Your task to perform on an android device: Go to privacy settings Image 0: 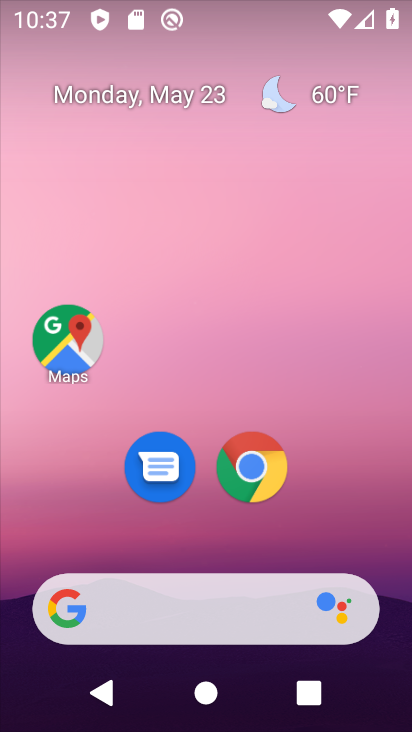
Step 0: drag from (193, 666) to (211, 1)
Your task to perform on an android device: Go to privacy settings Image 1: 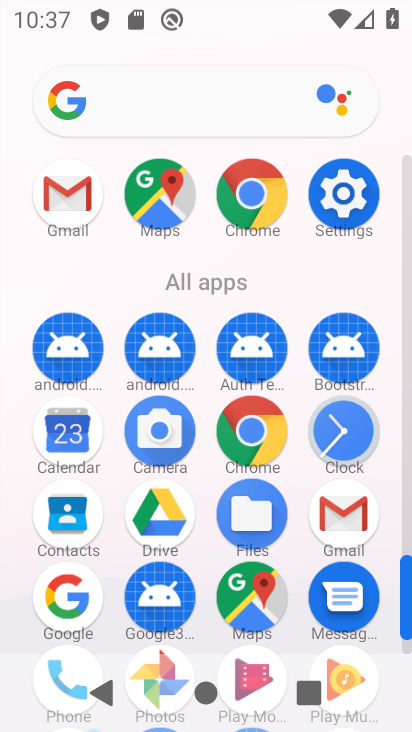
Step 1: click (333, 186)
Your task to perform on an android device: Go to privacy settings Image 2: 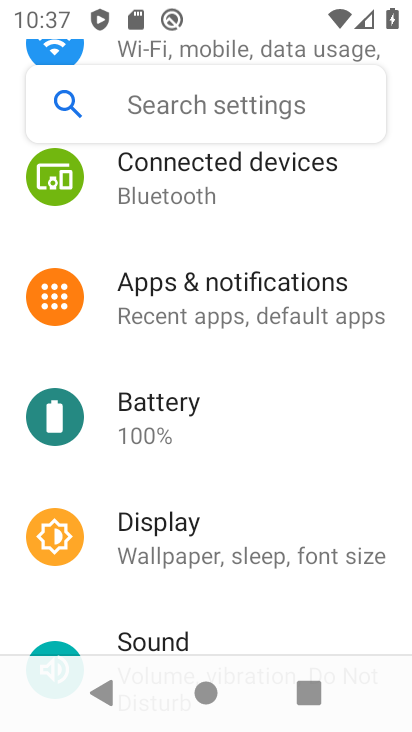
Step 2: drag from (177, 554) to (213, 56)
Your task to perform on an android device: Go to privacy settings Image 3: 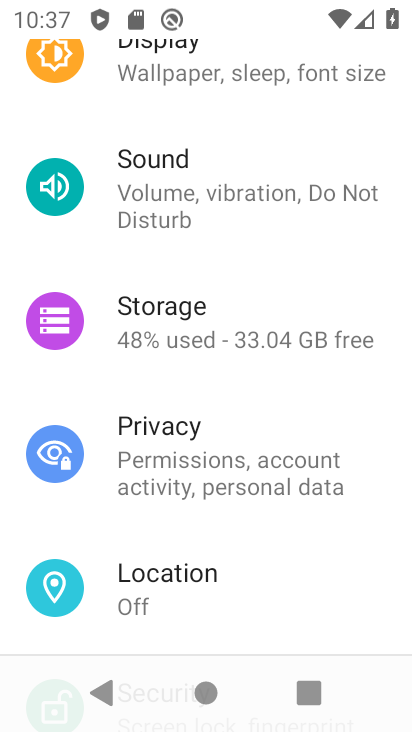
Step 3: click (196, 470)
Your task to perform on an android device: Go to privacy settings Image 4: 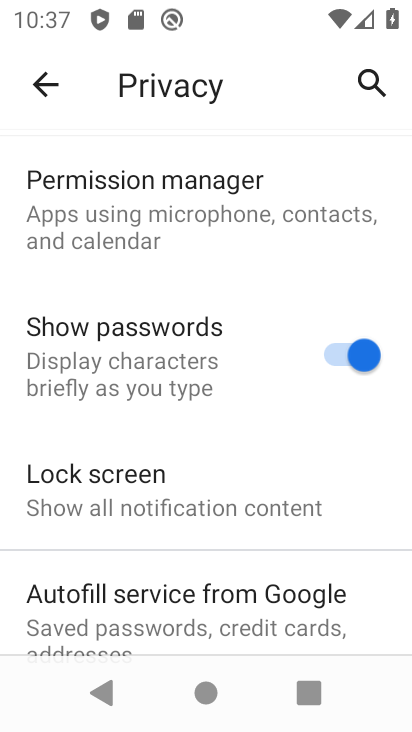
Step 4: task complete